Your task to perform on an android device: What's the weather going to be tomorrow? Image 0: 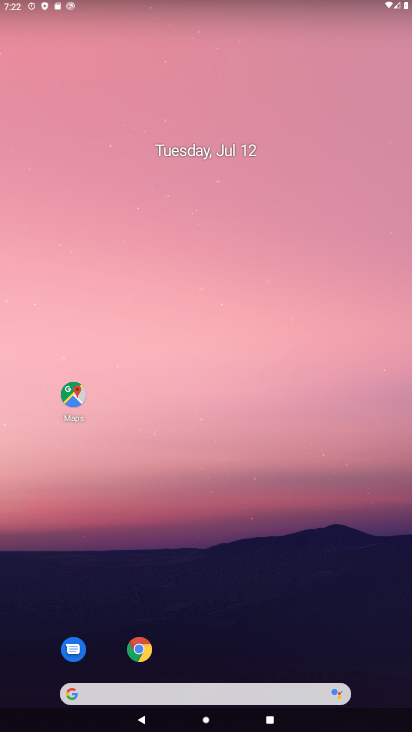
Step 0: drag from (187, 690) to (227, 237)
Your task to perform on an android device: What's the weather going to be tomorrow? Image 1: 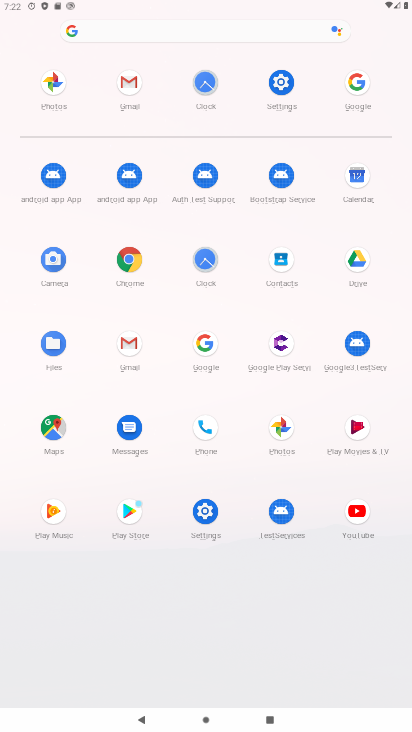
Step 1: click (355, 82)
Your task to perform on an android device: What's the weather going to be tomorrow? Image 2: 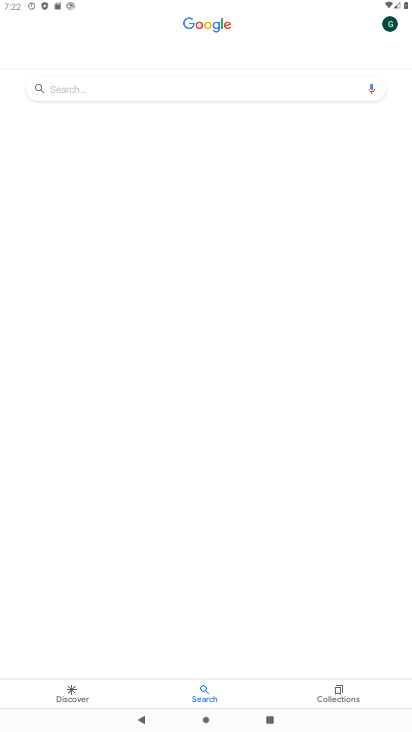
Step 2: click (187, 83)
Your task to perform on an android device: What's the weather going to be tomorrow? Image 3: 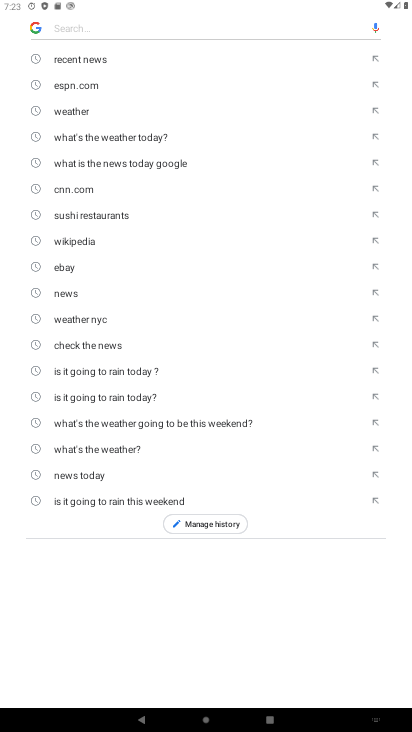
Step 3: type "What's the weather going to be tomorrow?"
Your task to perform on an android device: What's the weather going to be tomorrow? Image 4: 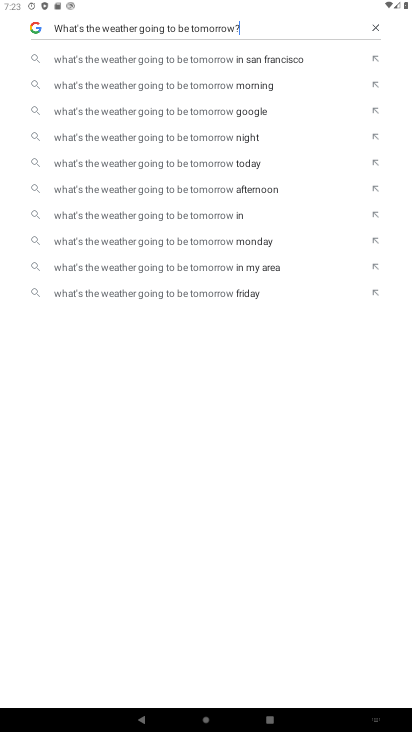
Step 4: click (90, 63)
Your task to perform on an android device: What's the weather going to be tomorrow? Image 5: 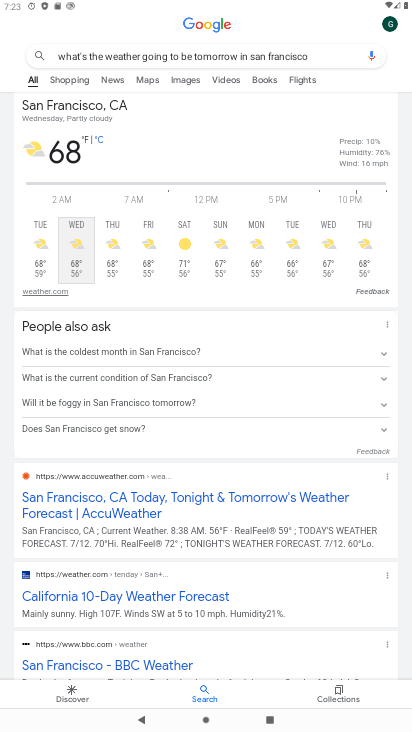
Step 5: task complete